Your task to perform on an android device: Show the shopping cart on bestbuy.com. Add lenovo thinkpad to the cart on bestbuy.com Image 0: 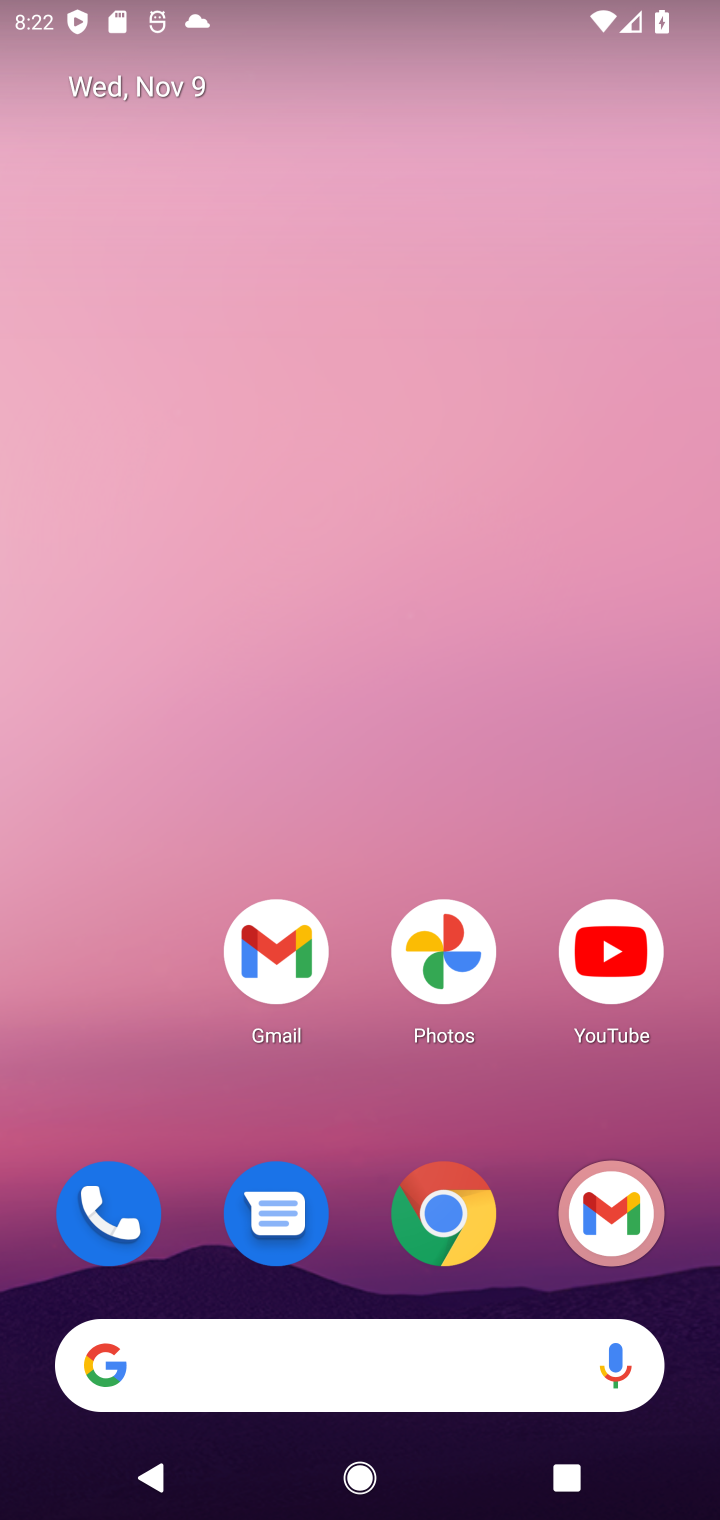
Step 0: click (448, 1221)
Your task to perform on an android device: Show the shopping cart on bestbuy.com. Add lenovo thinkpad to the cart on bestbuy.com Image 1: 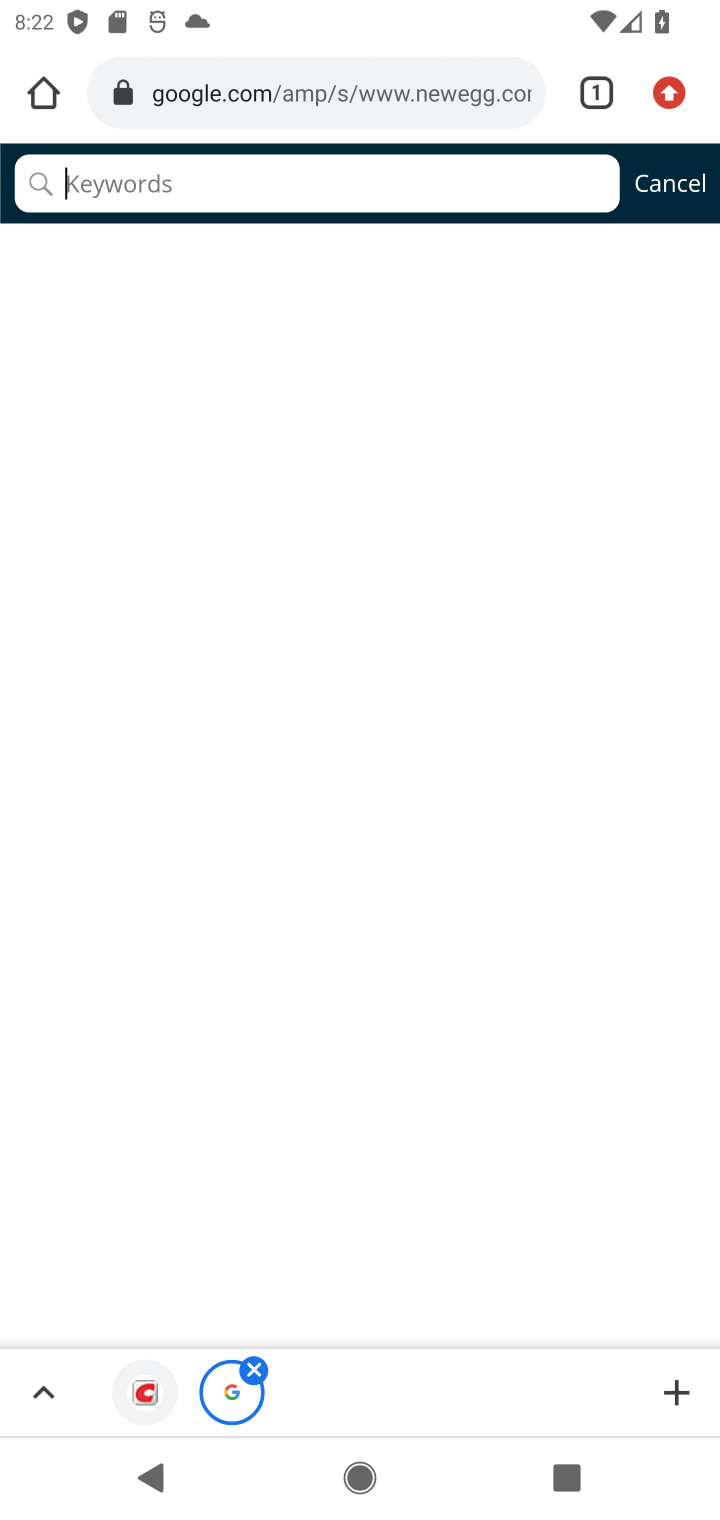
Step 1: click (246, 103)
Your task to perform on an android device: Show the shopping cart on bestbuy.com. Add lenovo thinkpad to the cart on bestbuy.com Image 2: 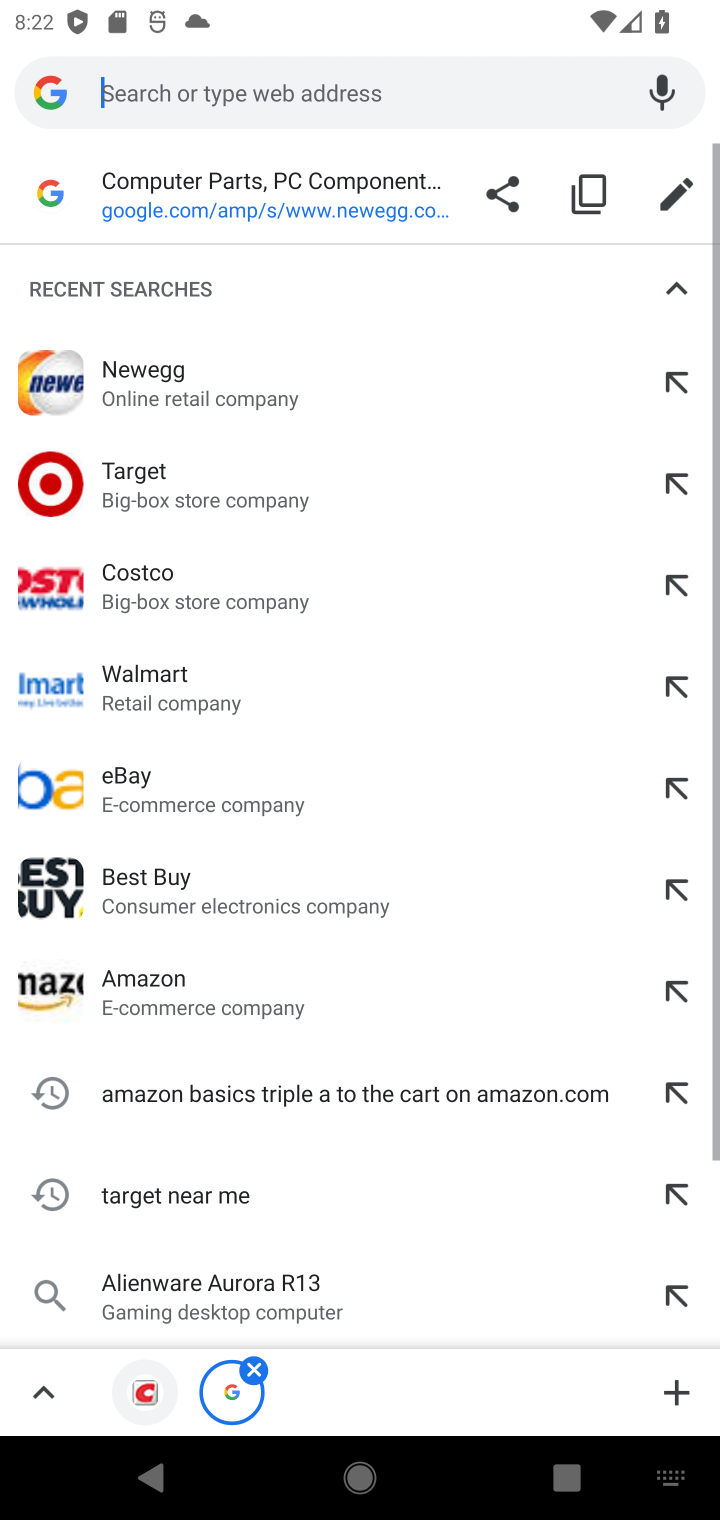
Step 2: click (134, 895)
Your task to perform on an android device: Show the shopping cart on bestbuy.com. Add lenovo thinkpad to the cart on bestbuy.com Image 3: 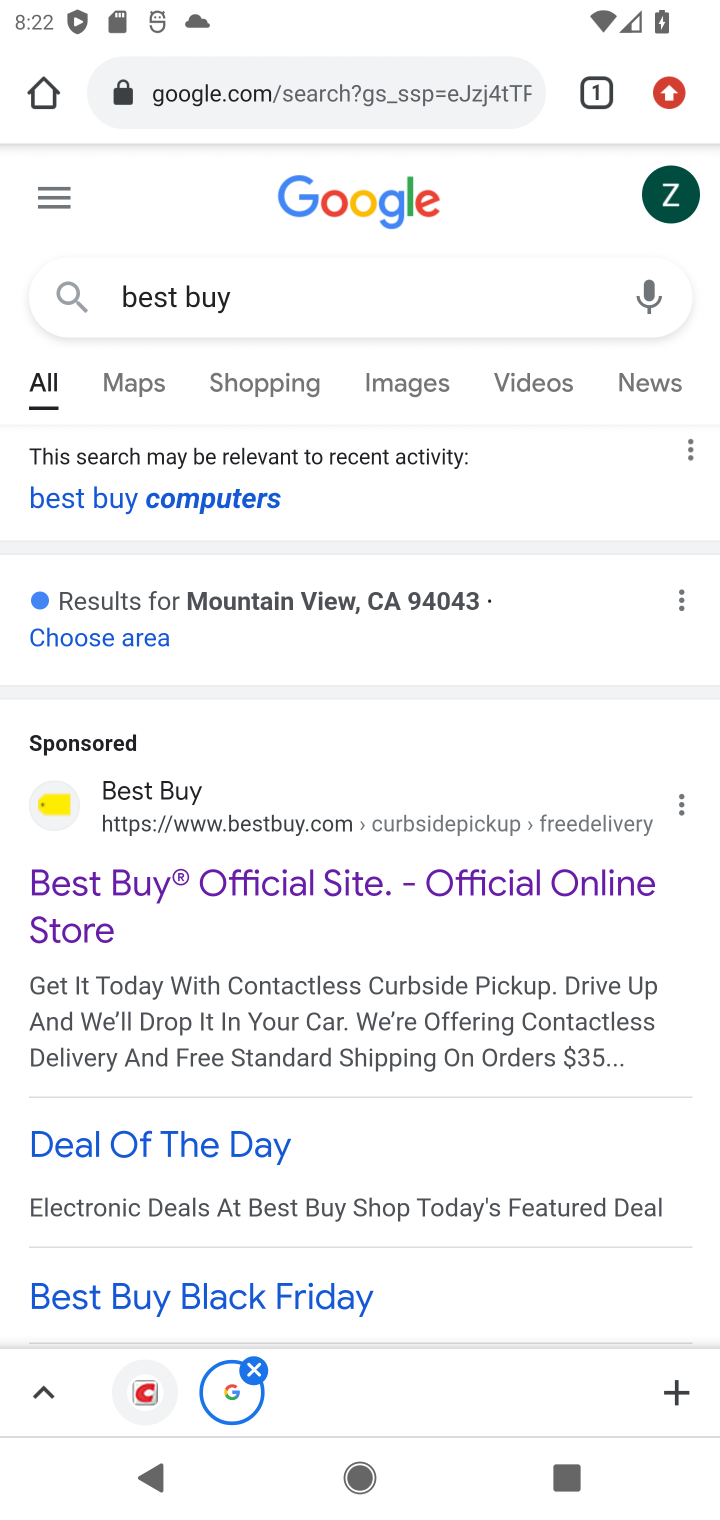
Step 3: drag from (167, 955) to (296, 301)
Your task to perform on an android device: Show the shopping cart on bestbuy.com. Add lenovo thinkpad to the cart on bestbuy.com Image 4: 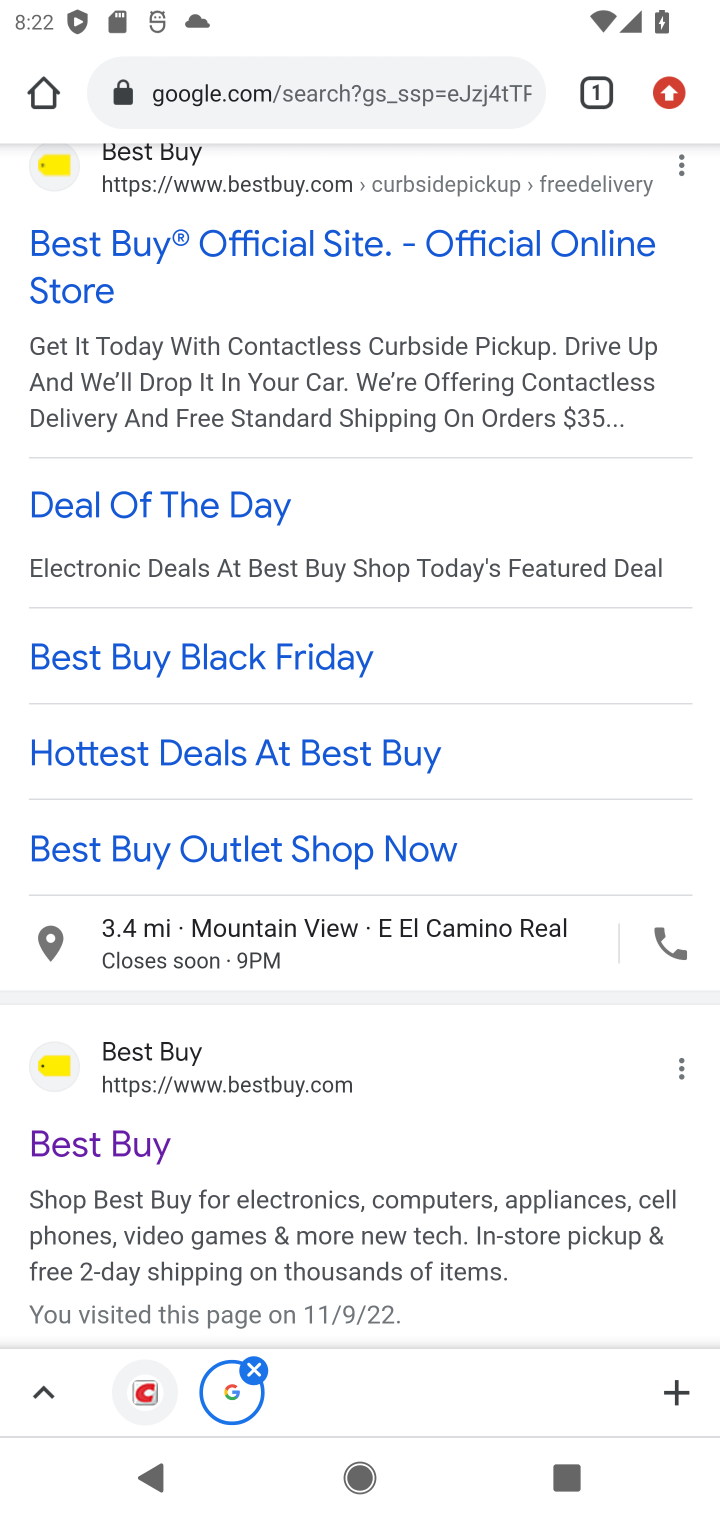
Step 4: drag from (191, 1142) to (245, 806)
Your task to perform on an android device: Show the shopping cart on bestbuy.com. Add lenovo thinkpad to the cart on bestbuy.com Image 5: 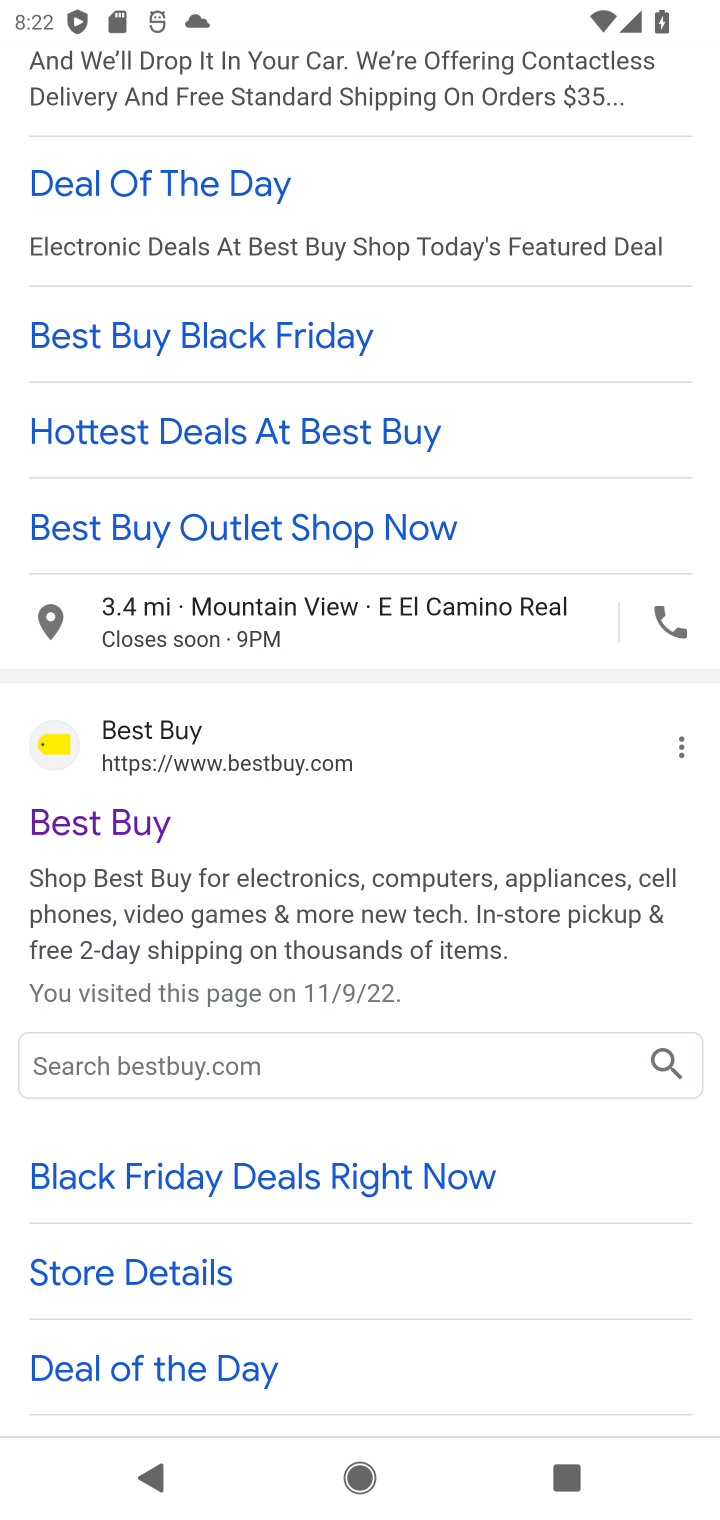
Step 5: click (68, 819)
Your task to perform on an android device: Show the shopping cart on bestbuy.com. Add lenovo thinkpad to the cart on bestbuy.com Image 6: 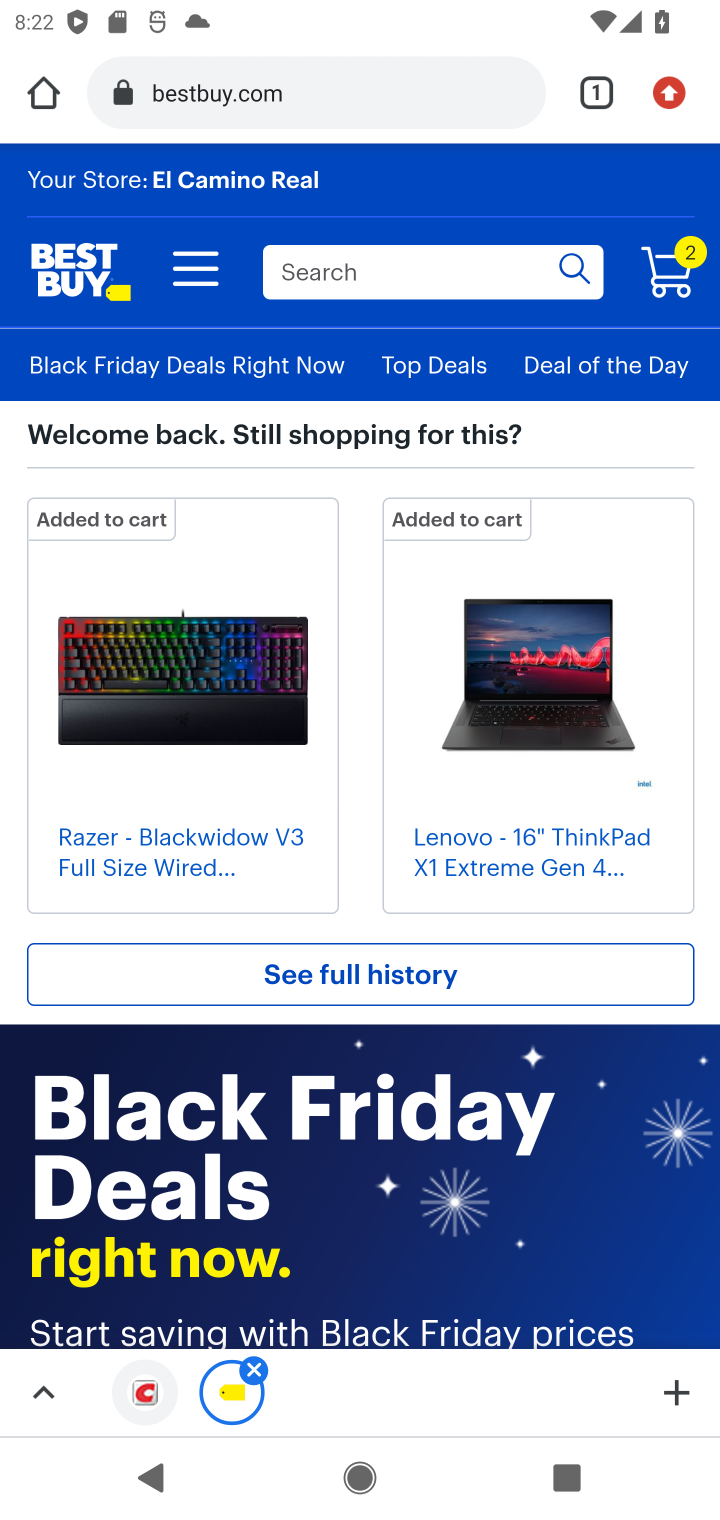
Step 6: click (299, 260)
Your task to perform on an android device: Show the shopping cart on bestbuy.com. Add lenovo thinkpad to the cart on bestbuy.com Image 7: 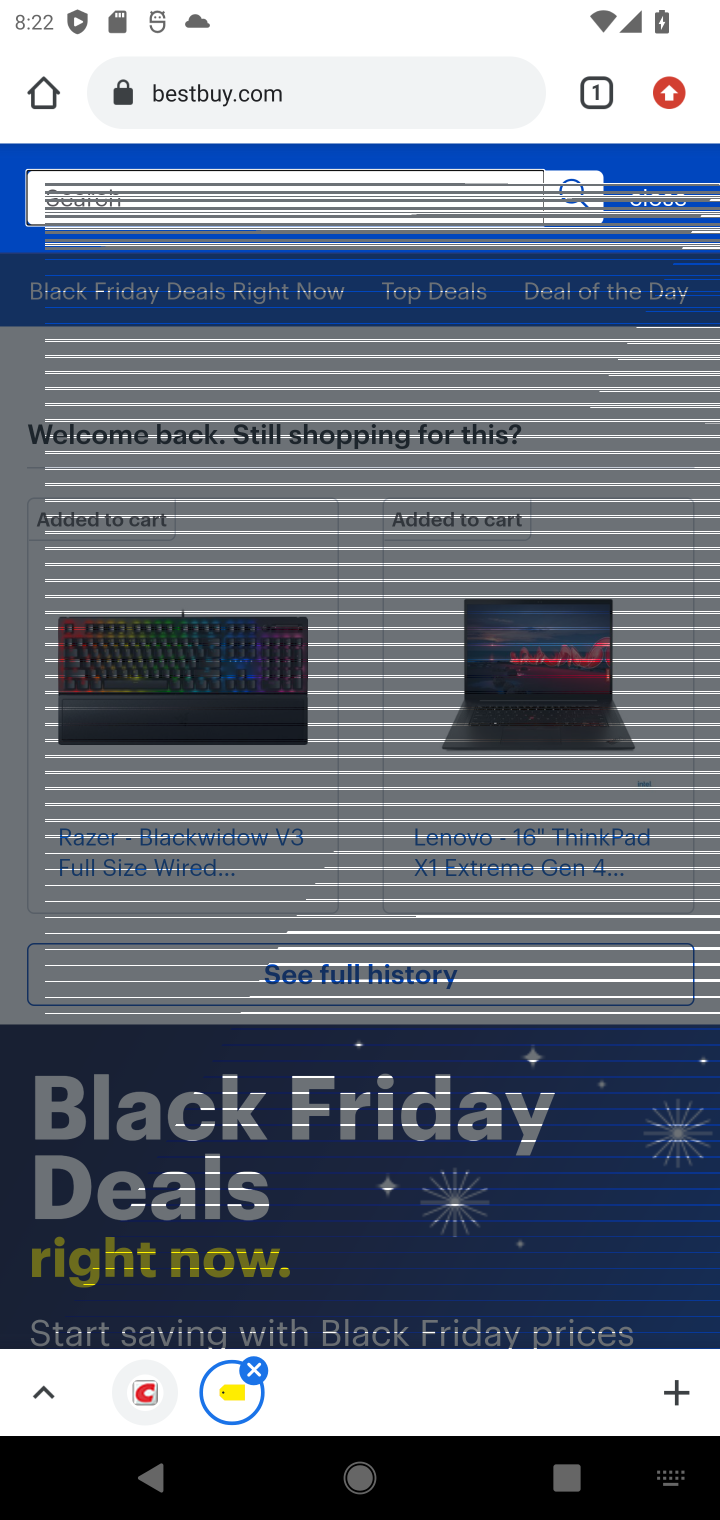
Step 7: type "lenovo thinkpad"
Your task to perform on an android device: Show the shopping cart on bestbuy.com. Add lenovo thinkpad to the cart on bestbuy.com Image 8: 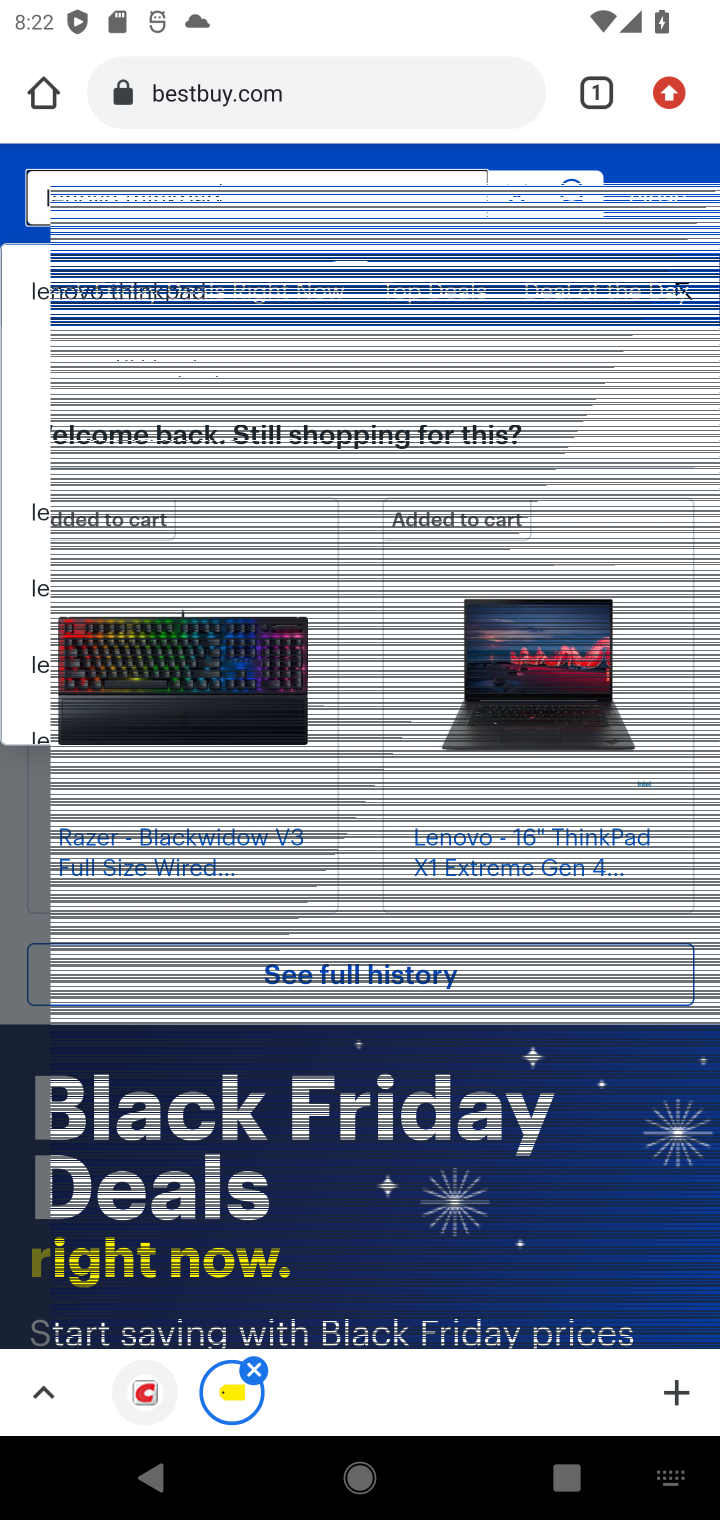
Step 8: click (37, 294)
Your task to perform on an android device: Show the shopping cart on bestbuy.com. Add lenovo thinkpad to the cart on bestbuy.com Image 9: 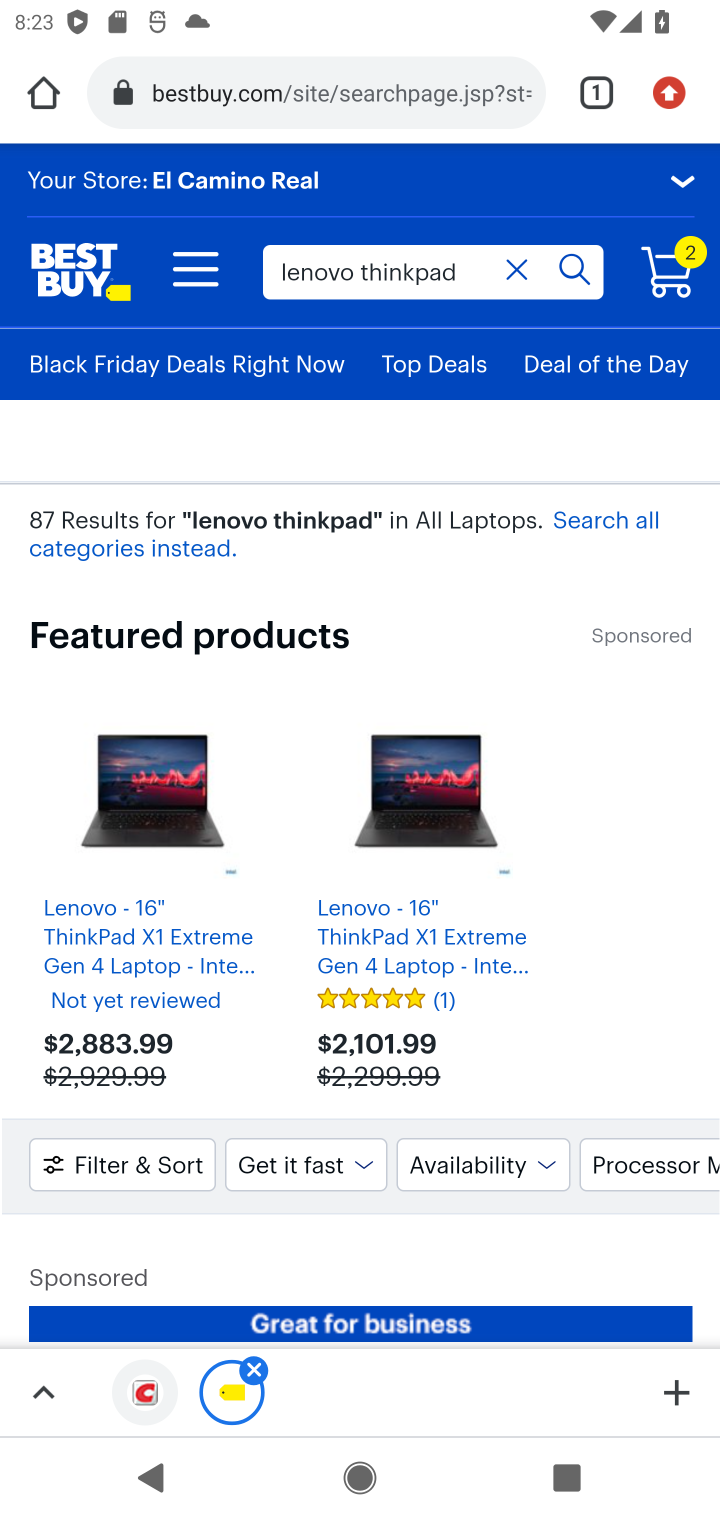
Step 9: click (122, 912)
Your task to perform on an android device: Show the shopping cart on bestbuy.com. Add lenovo thinkpad to the cart on bestbuy.com Image 10: 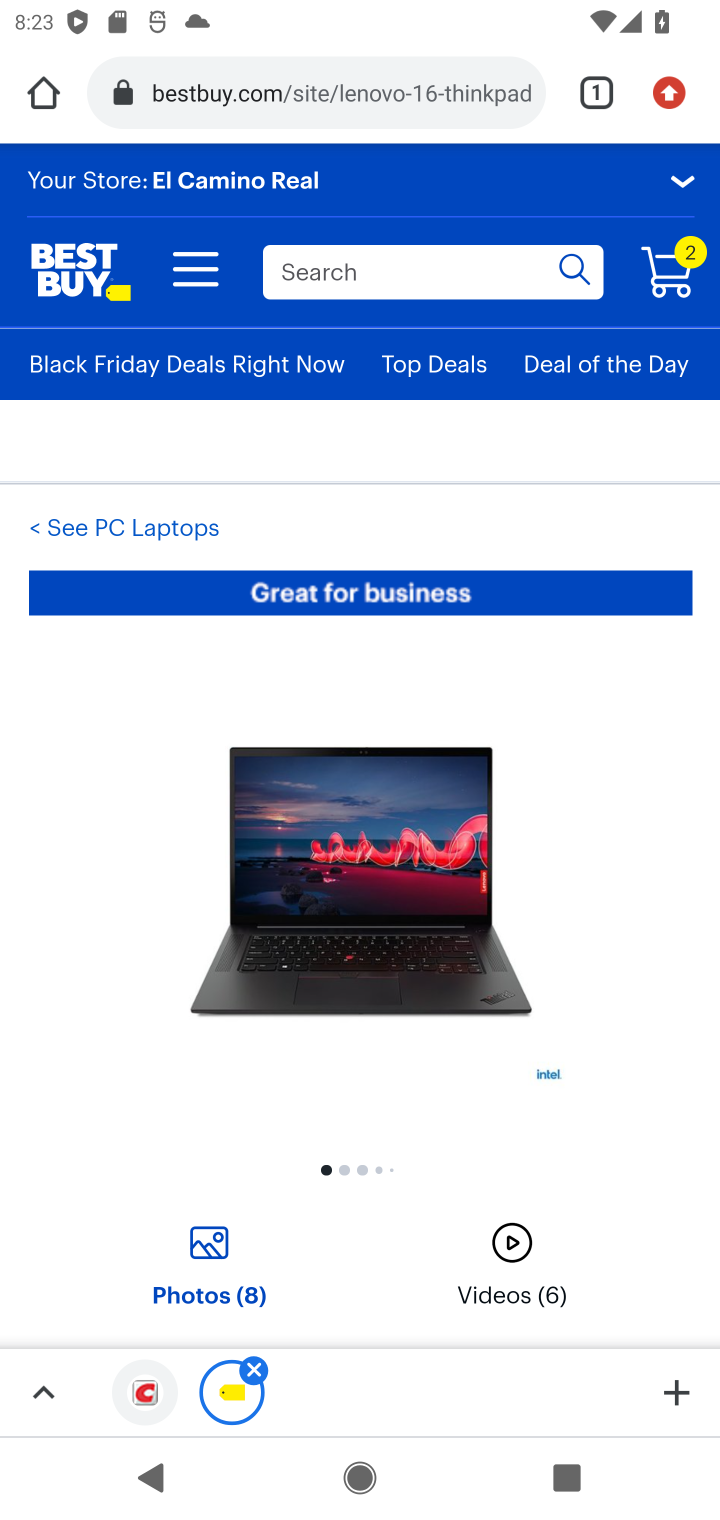
Step 10: drag from (530, 999) to (627, 184)
Your task to perform on an android device: Show the shopping cart on bestbuy.com. Add lenovo thinkpad to the cart on bestbuy.com Image 11: 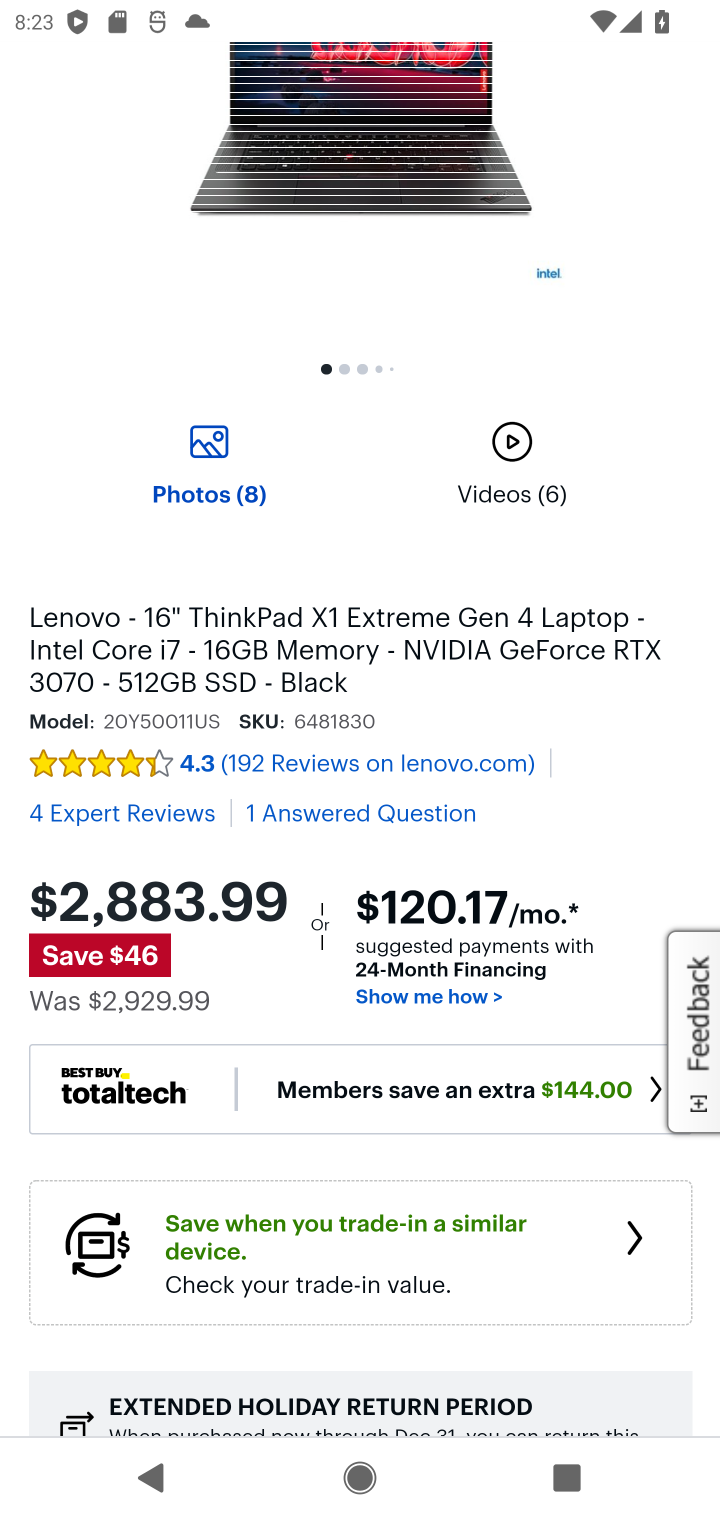
Step 11: drag from (260, 1175) to (277, 249)
Your task to perform on an android device: Show the shopping cart on bestbuy.com. Add lenovo thinkpad to the cart on bestbuy.com Image 12: 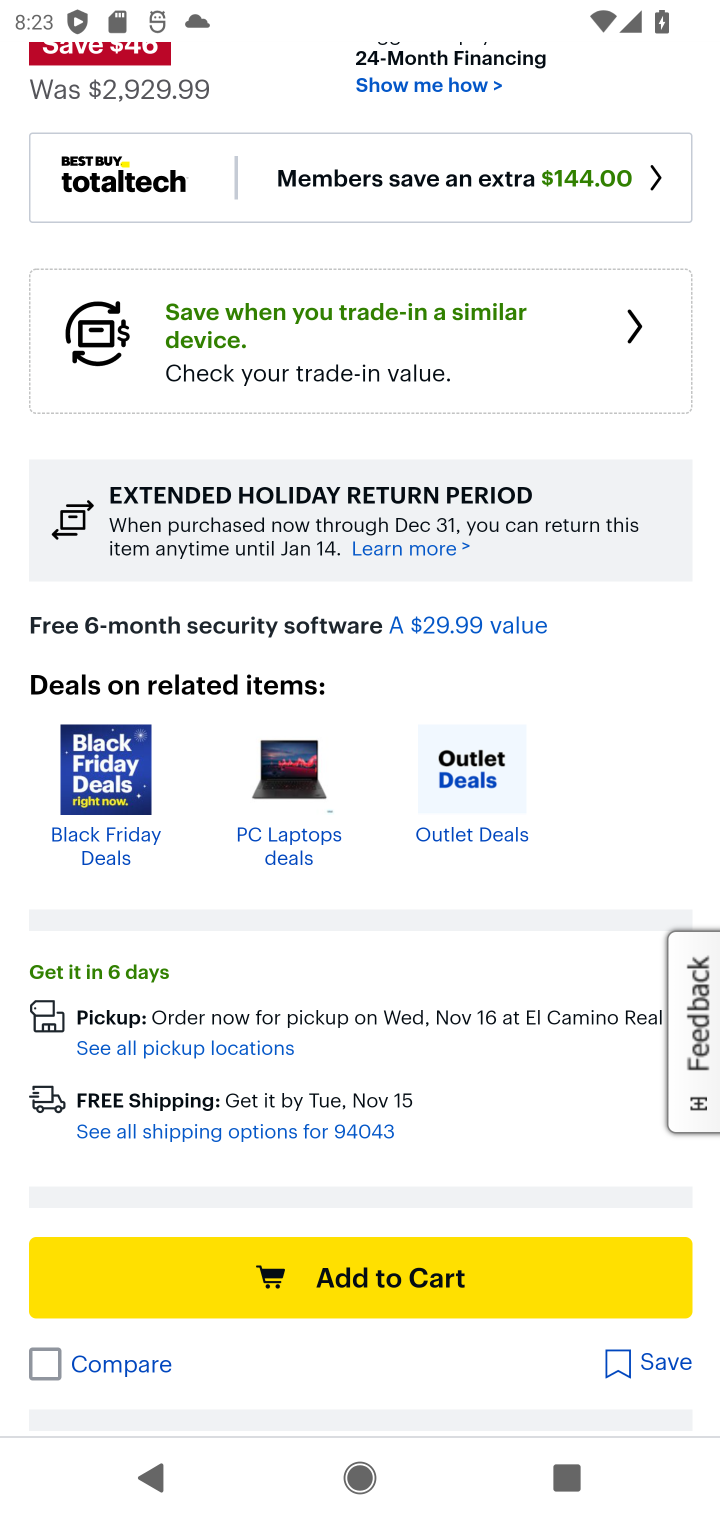
Step 12: click (372, 1273)
Your task to perform on an android device: Show the shopping cart on bestbuy.com. Add lenovo thinkpad to the cart on bestbuy.com Image 13: 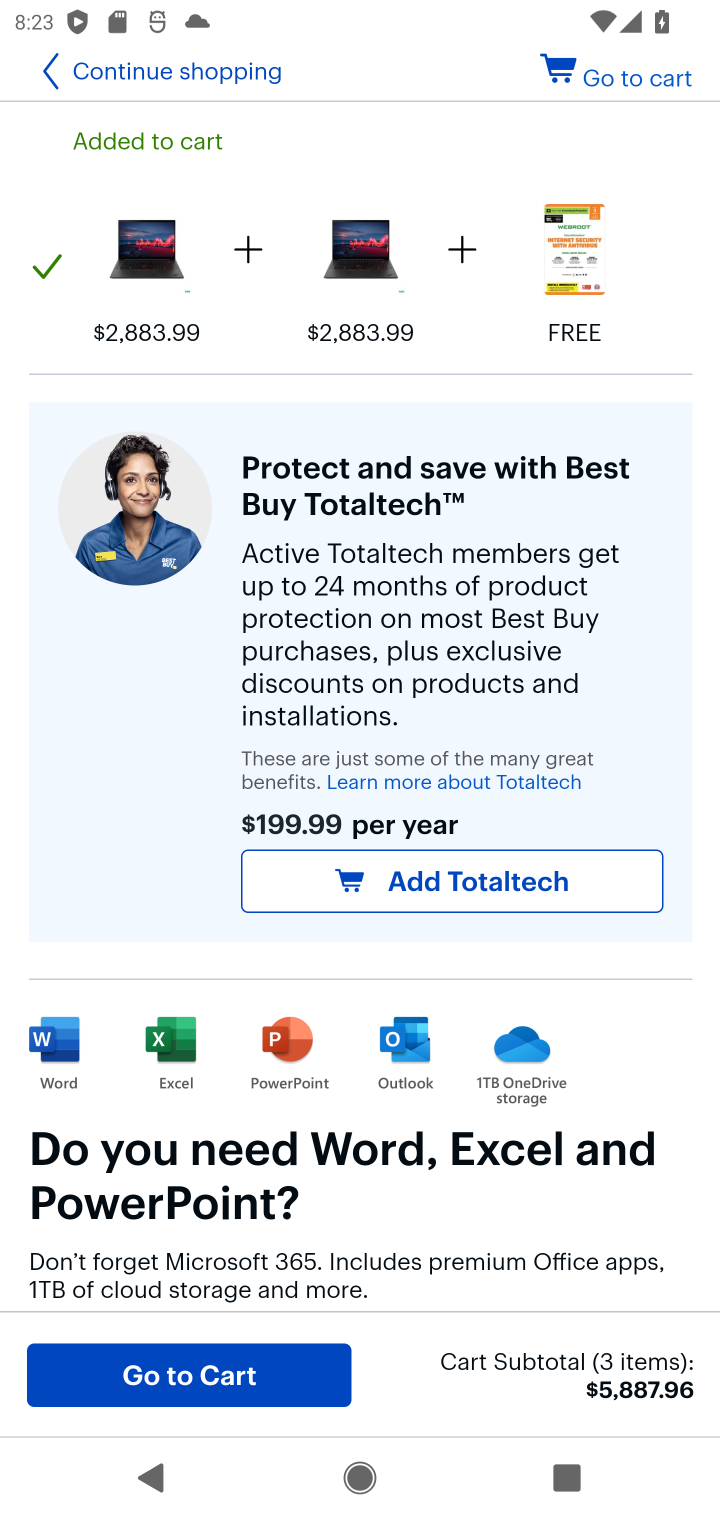
Step 13: click (244, 1372)
Your task to perform on an android device: Show the shopping cart on bestbuy.com. Add lenovo thinkpad to the cart on bestbuy.com Image 14: 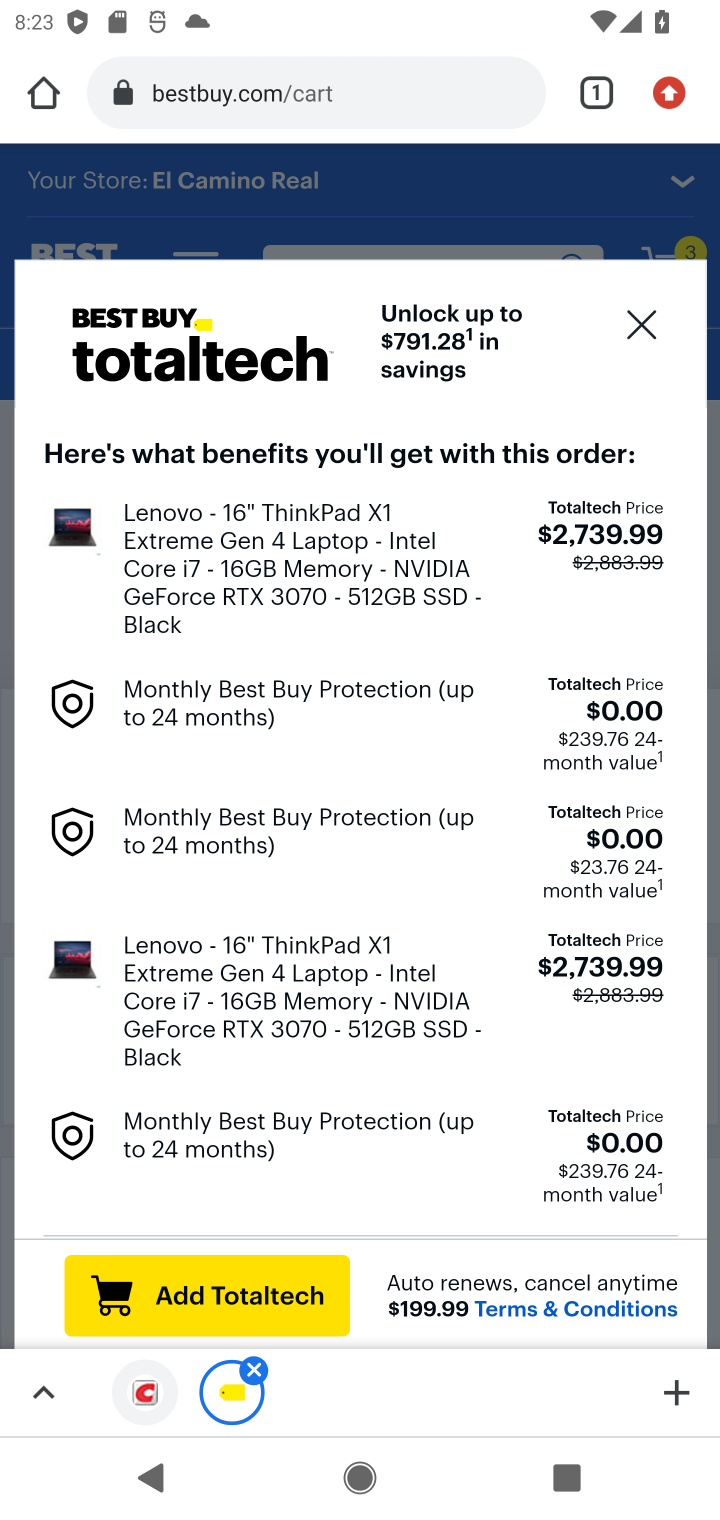
Step 14: click (636, 314)
Your task to perform on an android device: Show the shopping cart on bestbuy.com. Add lenovo thinkpad to the cart on bestbuy.com Image 15: 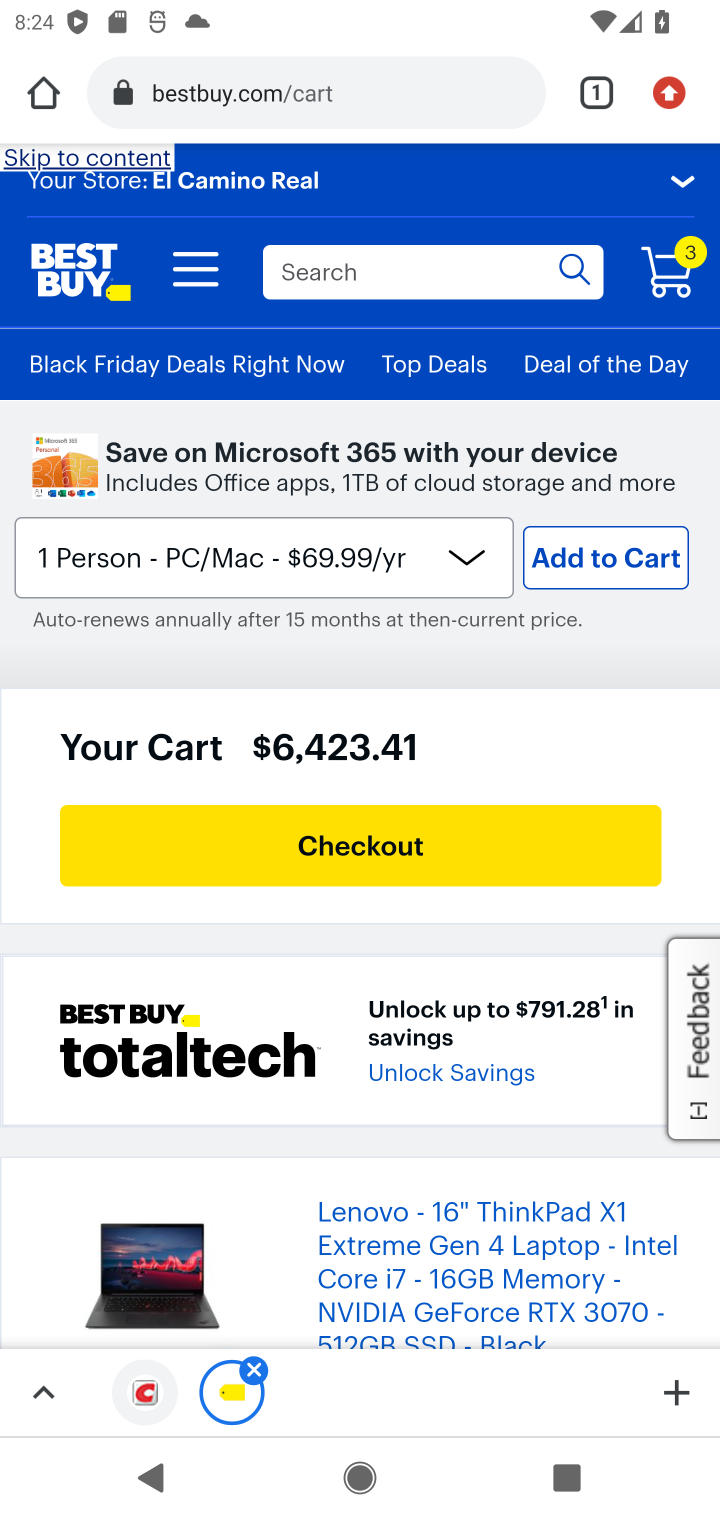
Step 15: click (342, 1223)
Your task to perform on an android device: Show the shopping cart on bestbuy.com. Add lenovo thinkpad to the cart on bestbuy.com Image 16: 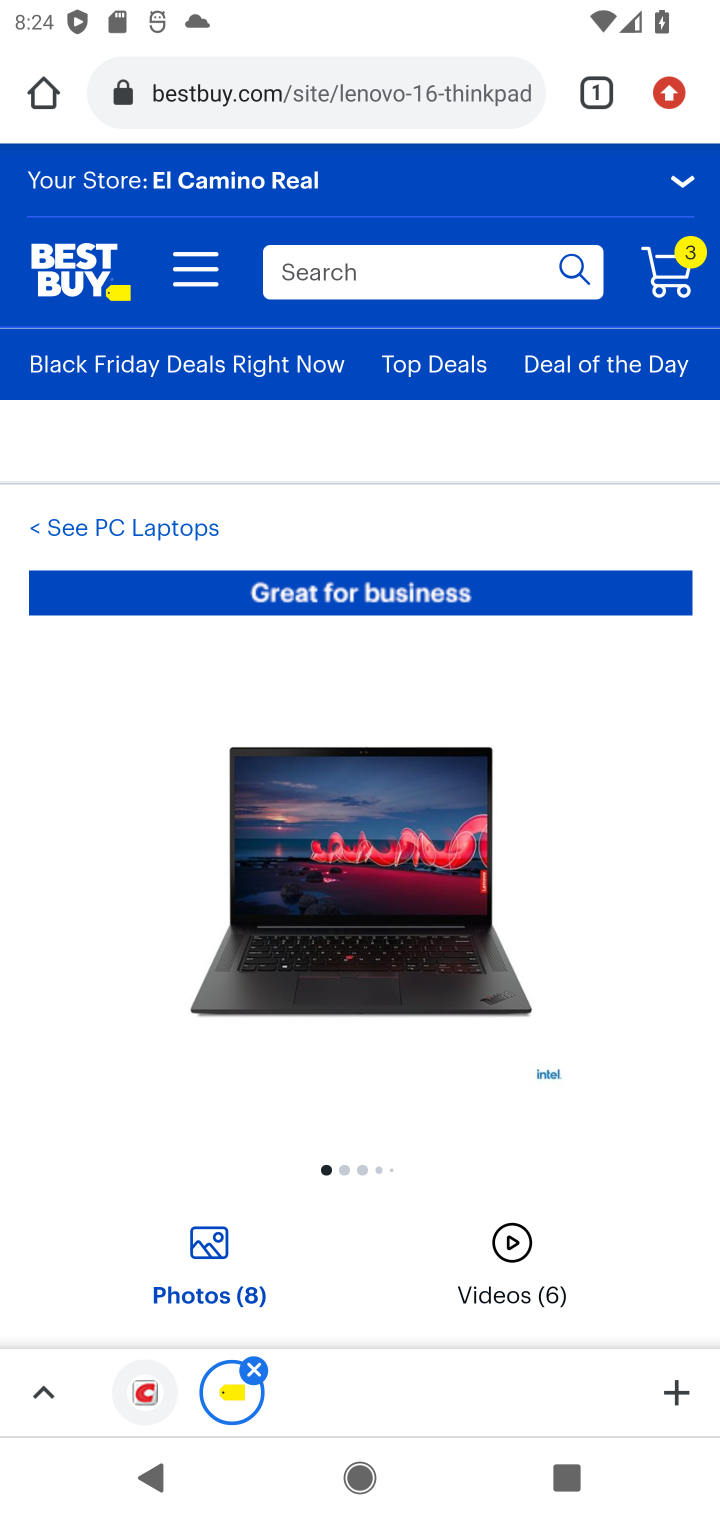
Step 16: drag from (412, 854) to (396, 396)
Your task to perform on an android device: Show the shopping cart on bestbuy.com. Add lenovo thinkpad to the cart on bestbuy.com Image 17: 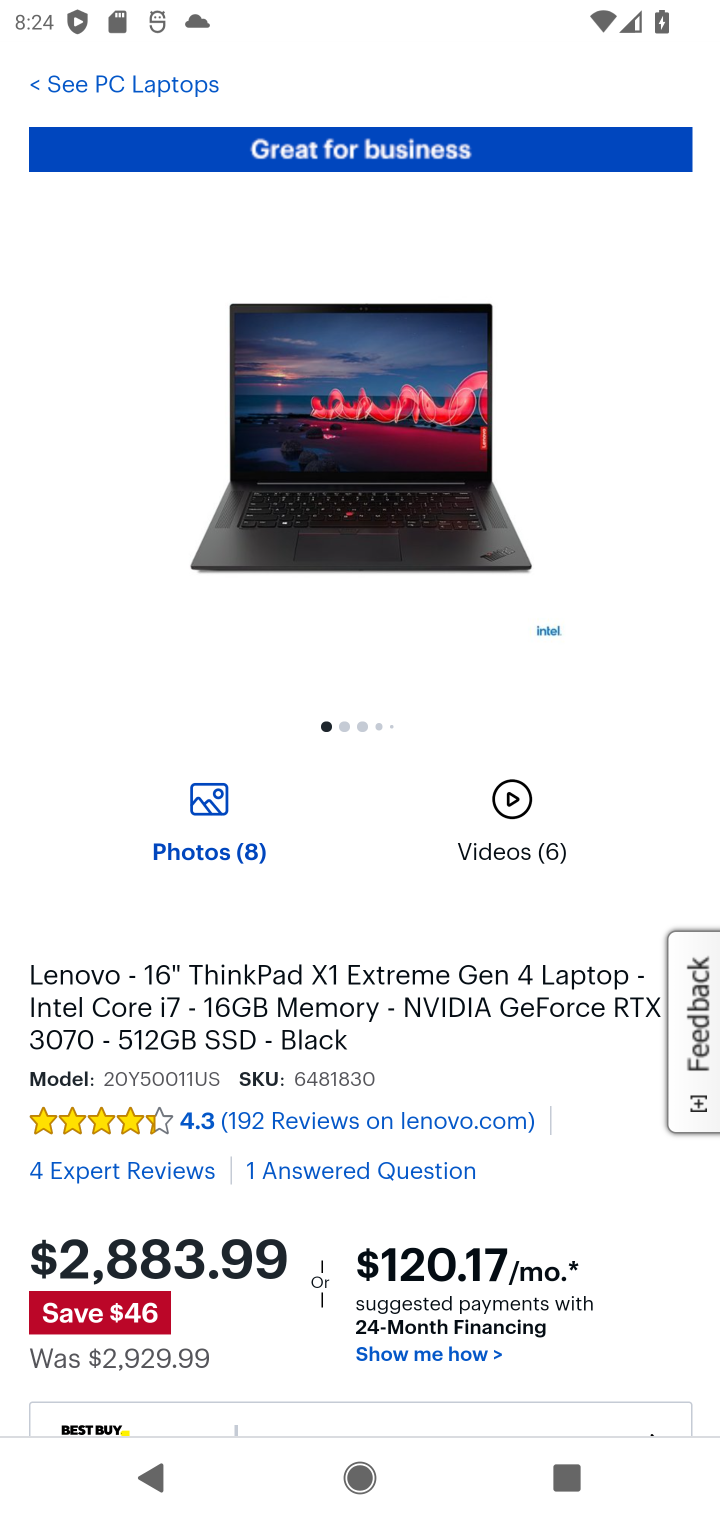
Step 17: drag from (419, 974) to (426, 442)
Your task to perform on an android device: Show the shopping cart on bestbuy.com. Add lenovo thinkpad to the cart on bestbuy.com Image 18: 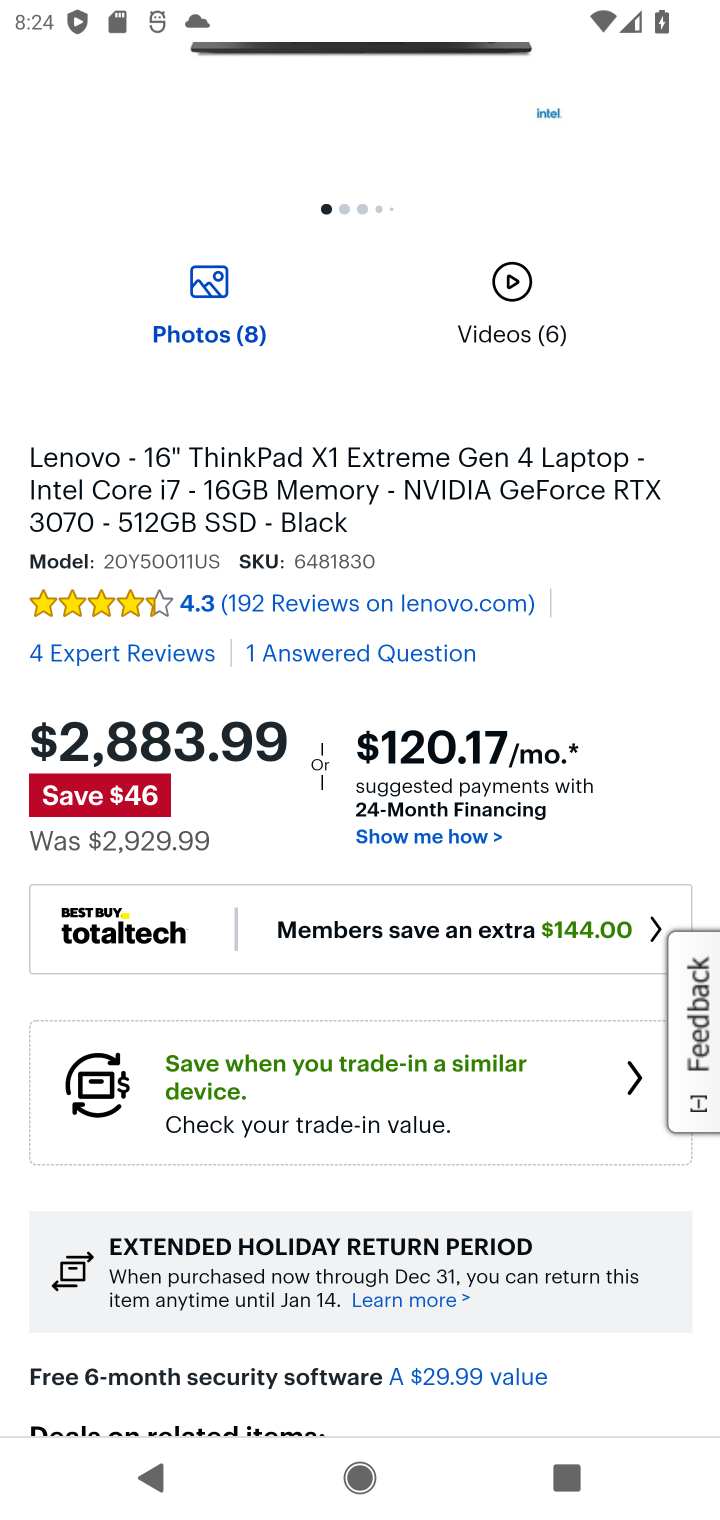
Step 18: drag from (508, 319) to (504, 1429)
Your task to perform on an android device: Show the shopping cart on bestbuy.com. Add lenovo thinkpad to the cart on bestbuy.com Image 19: 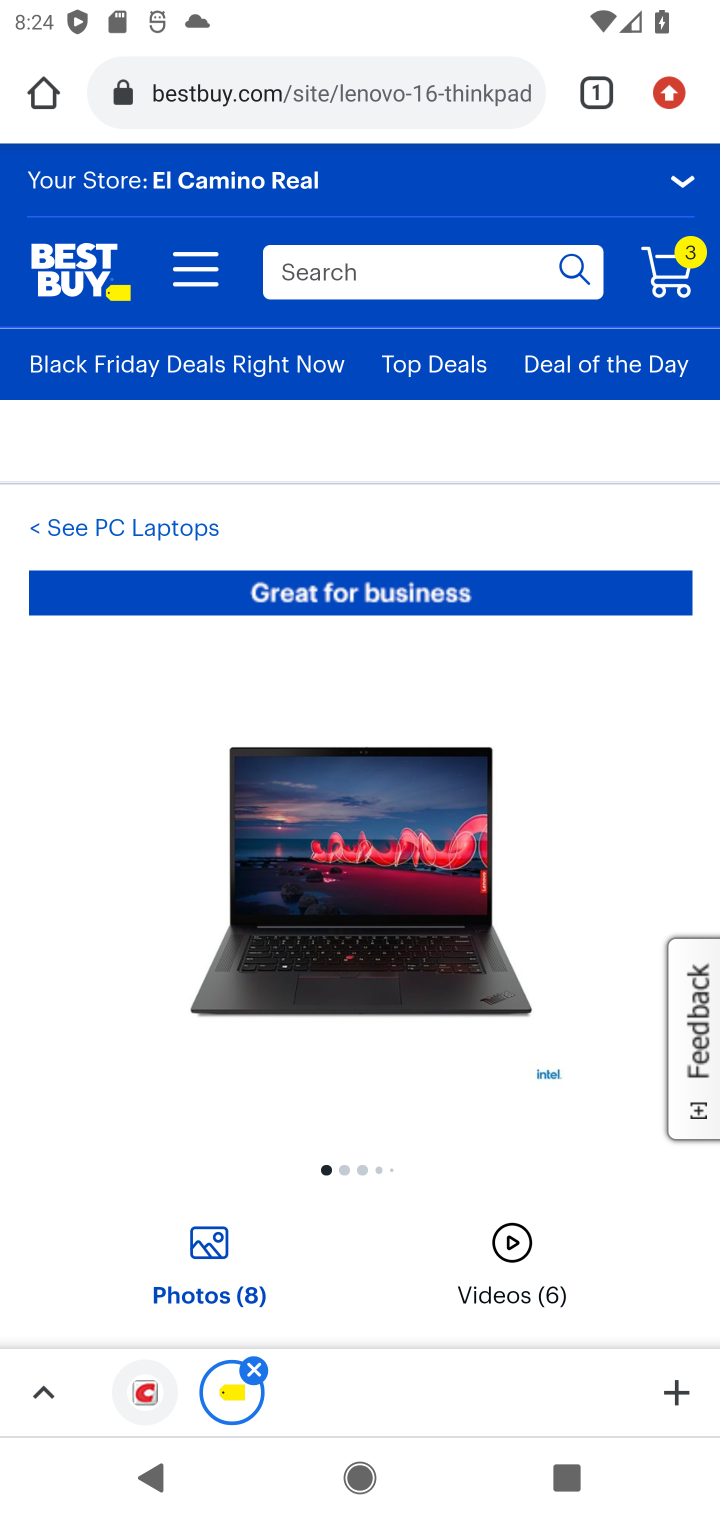
Step 19: click (687, 286)
Your task to perform on an android device: Show the shopping cart on bestbuy.com. Add lenovo thinkpad to the cart on bestbuy.com Image 20: 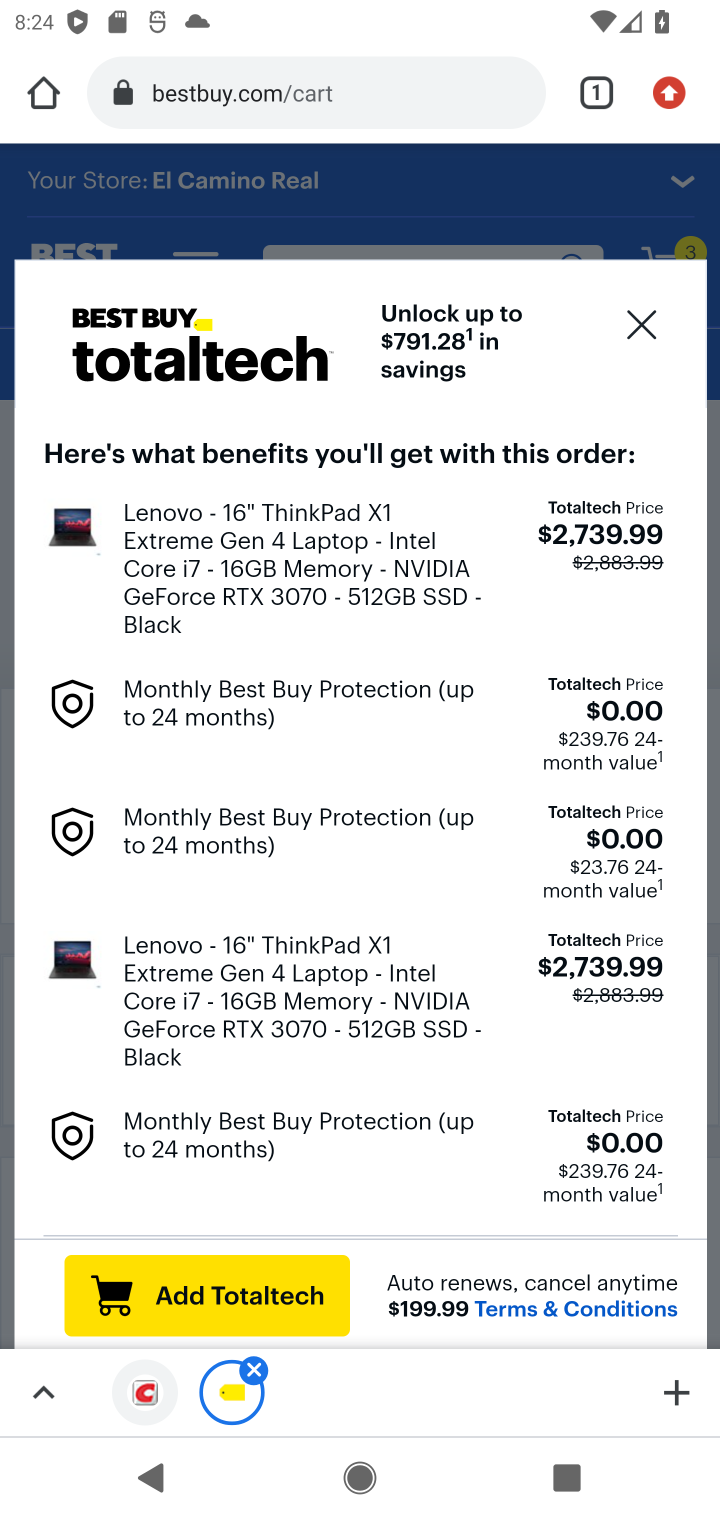
Step 20: click (650, 323)
Your task to perform on an android device: Show the shopping cart on bestbuy.com. Add lenovo thinkpad to the cart on bestbuy.com Image 21: 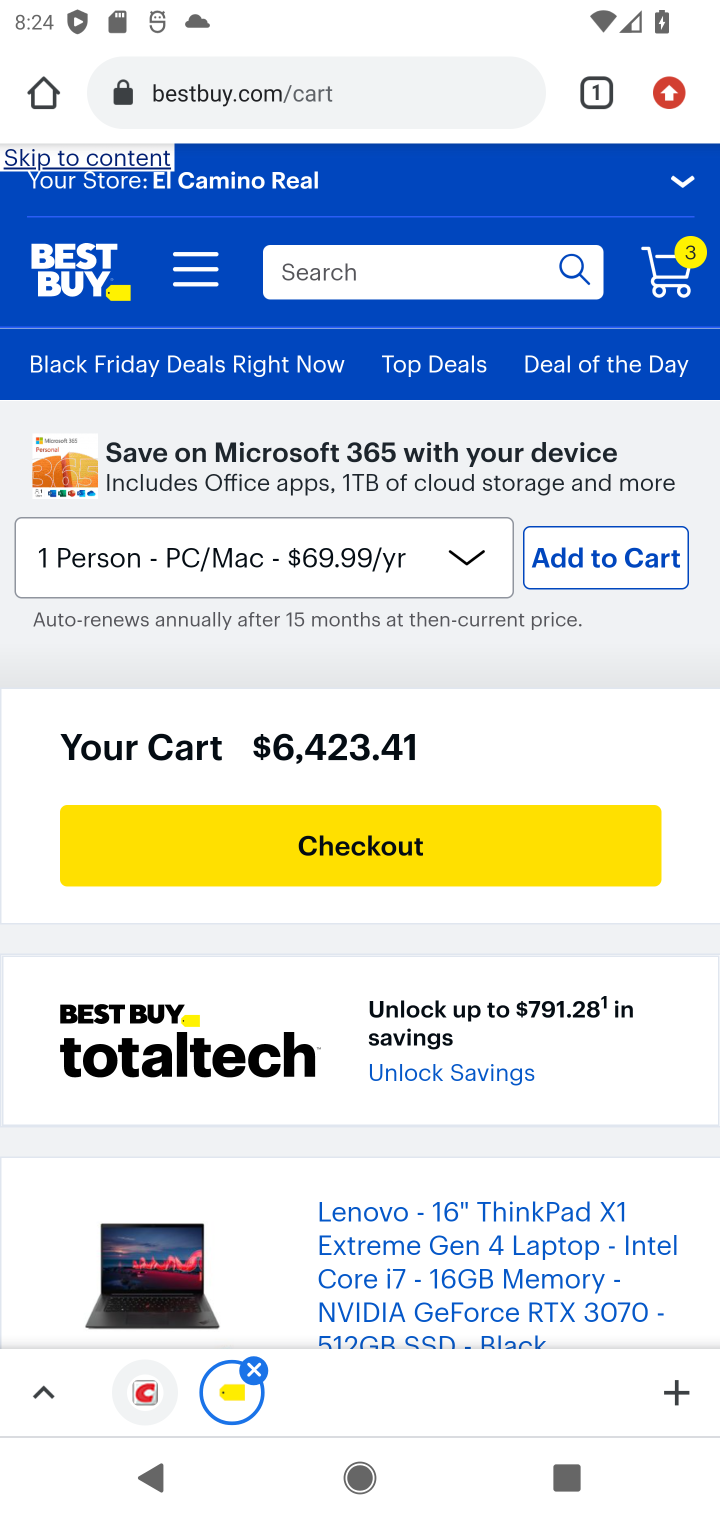
Step 21: task complete